Your task to perform on an android device: What's the weather going to be tomorrow? Image 0: 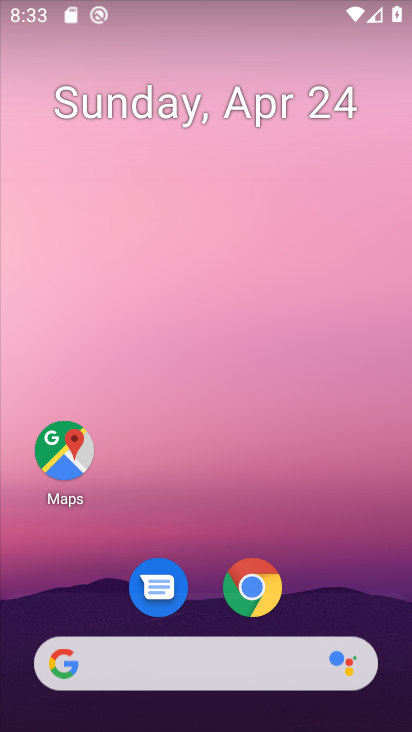
Step 0: click (164, 671)
Your task to perform on an android device: What's the weather going to be tomorrow? Image 1: 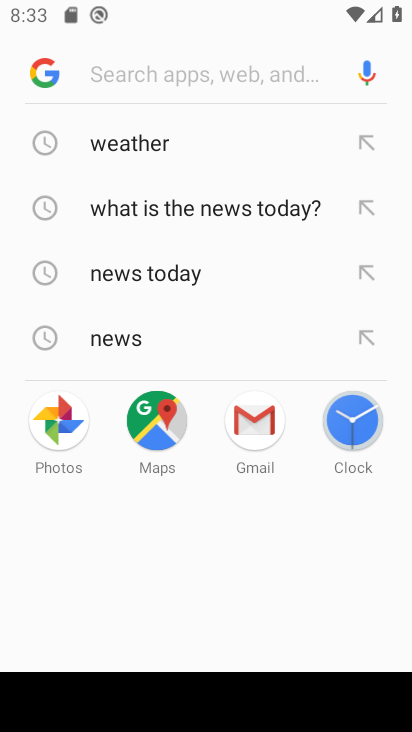
Step 1: click (154, 157)
Your task to perform on an android device: What's the weather going to be tomorrow? Image 2: 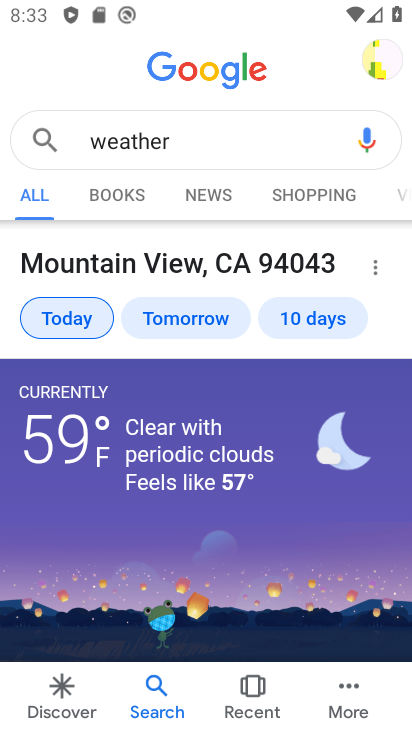
Step 2: task complete